Your task to perform on an android device: What's the news in Thailand? Image 0: 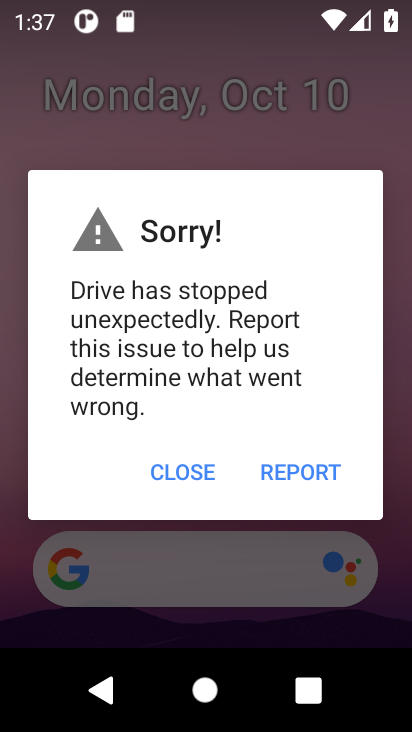
Step 0: click (160, 569)
Your task to perform on an android device: What's the news in Thailand? Image 1: 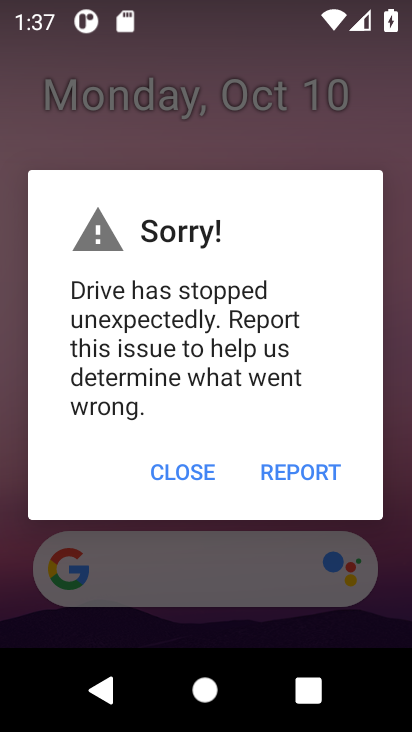
Step 1: type "news in Thailand"
Your task to perform on an android device: What's the news in Thailand? Image 2: 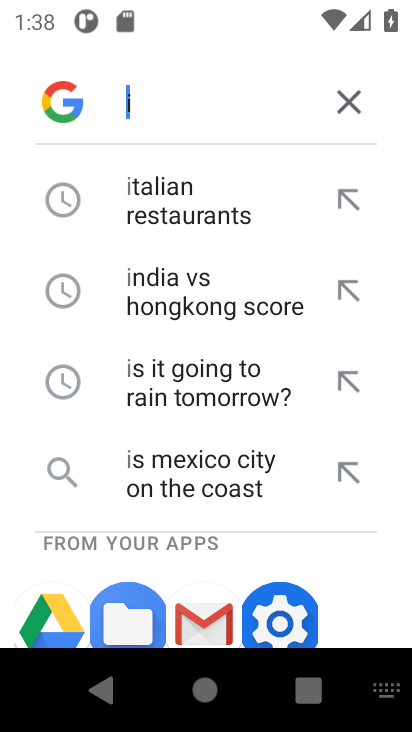
Step 2: click (176, 181)
Your task to perform on an android device: What's the news in Thailand? Image 3: 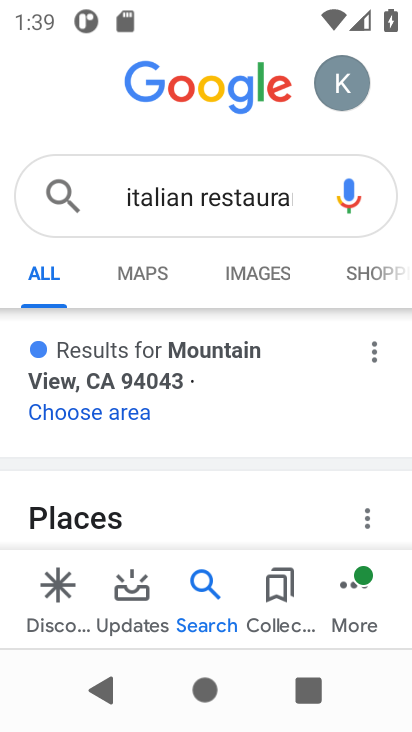
Step 3: task complete